Your task to perform on an android device: open the mobile data screen to see how much data has been used Image 0: 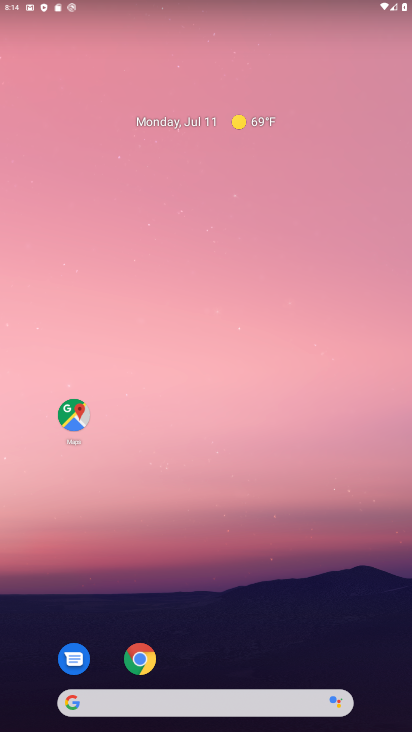
Step 0: drag from (275, 673) to (392, 130)
Your task to perform on an android device: open the mobile data screen to see how much data has been used Image 1: 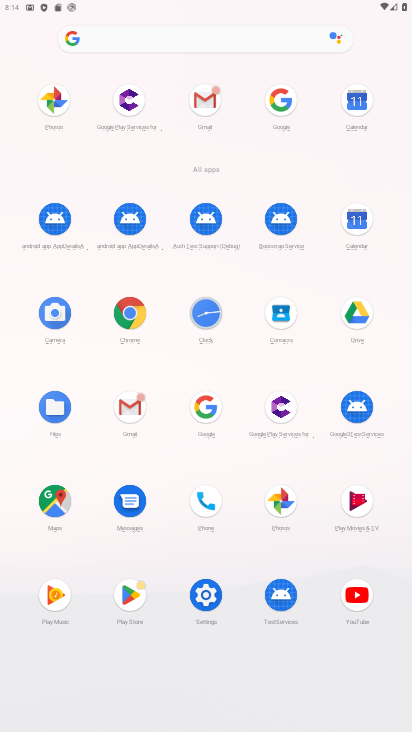
Step 1: click (212, 603)
Your task to perform on an android device: open the mobile data screen to see how much data has been used Image 2: 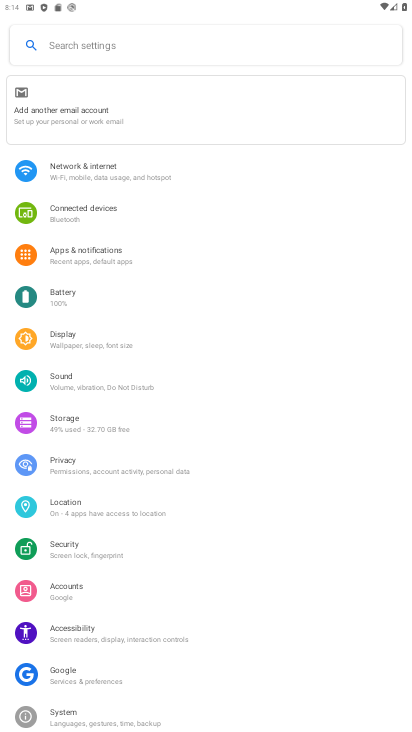
Step 2: click (137, 169)
Your task to perform on an android device: open the mobile data screen to see how much data has been used Image 3: 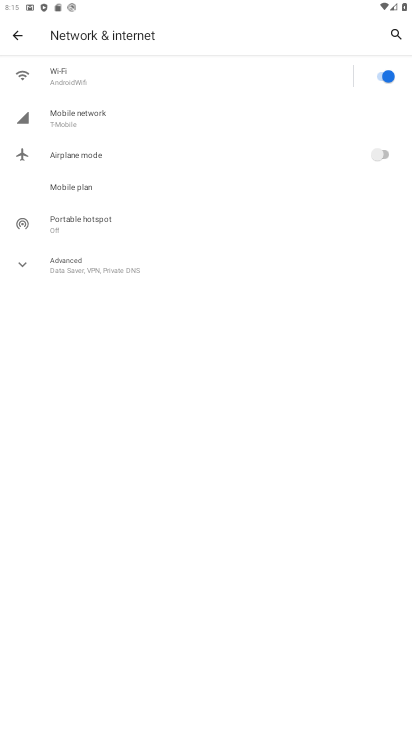
Step 3: click (118, 125)
Your task to perform on an android device: open the mobile data screen to see how much data has been used Image 4: 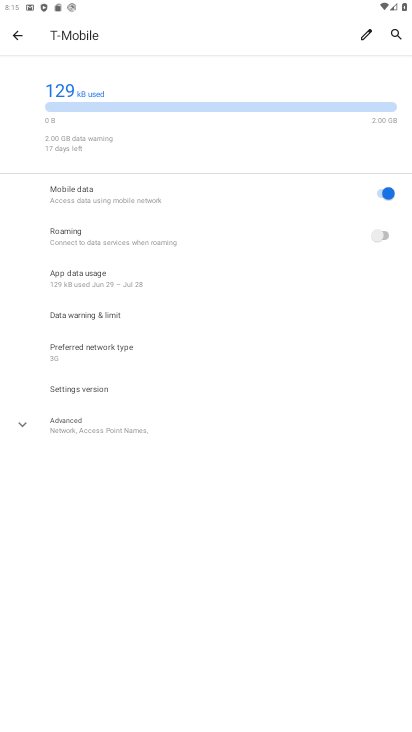
Step 4: task complete